Your task to perform on an android device: Set the phone to "Do not disturb". Image 0: 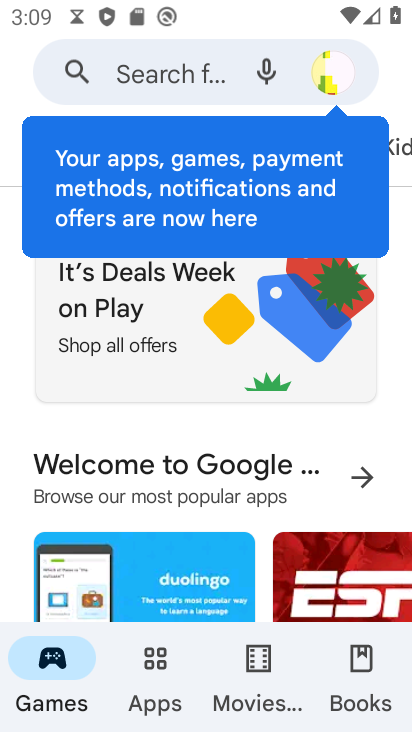
Step 0: press home button
Your task to perform on an android device: Set the phone to "Do not disturb". Image 1: 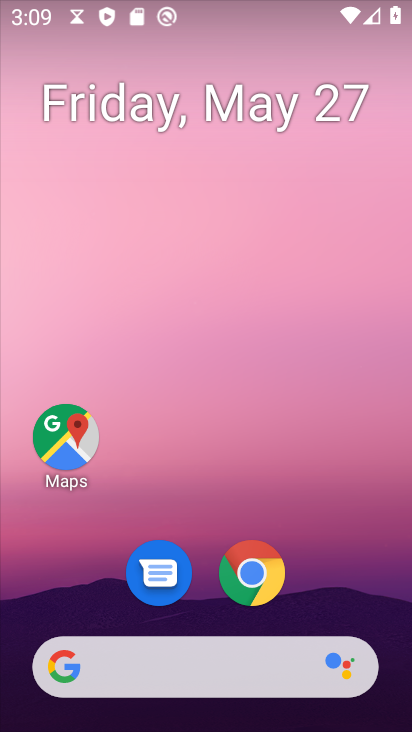
Step 1: drag from (307, 614) to (408, 150)
Your task to perform on an android device: Set the phone to "Do not disturb". Image 2: 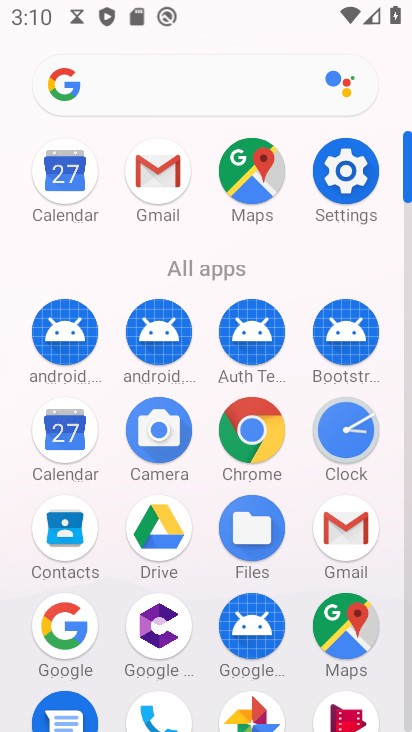
Step 2: click (341, 165)
Your task to perform on an android device: Set the phone to "Do not disturb". Image 3: 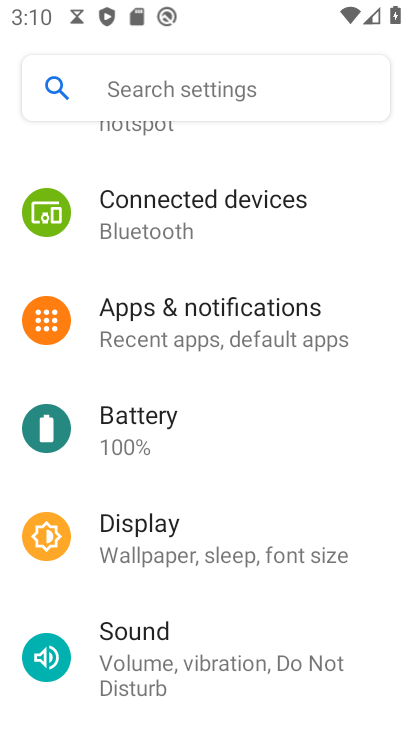
Step 3: click (98, 684)
Your task to perform on an android device: Set the phone to "Do not disturb". Image 4: 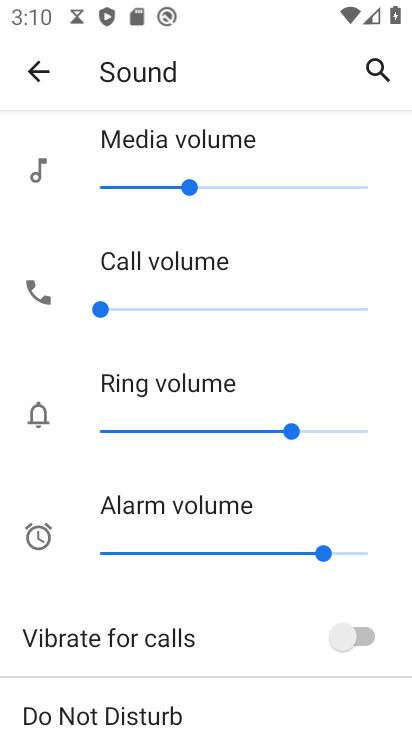
Step 4: drag from (141, 652) to (134, 173)
Your task to perform on an android device: Set the phone to "Do not disturb". Image 5: 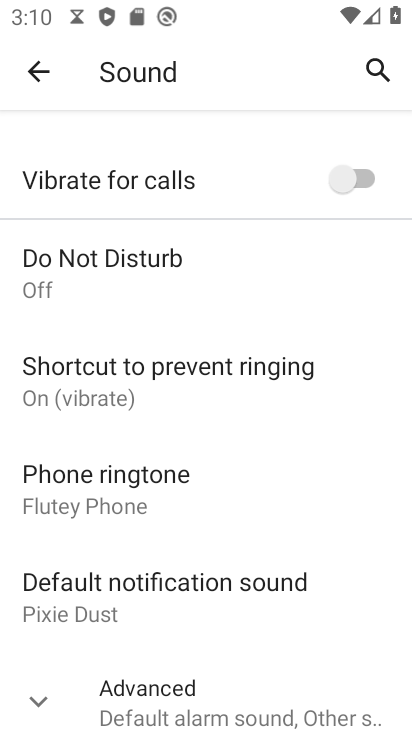
Step 5: click (118, 276)
Your task to perform on an android device: Set the phone to "Do not disturb". Image 6: 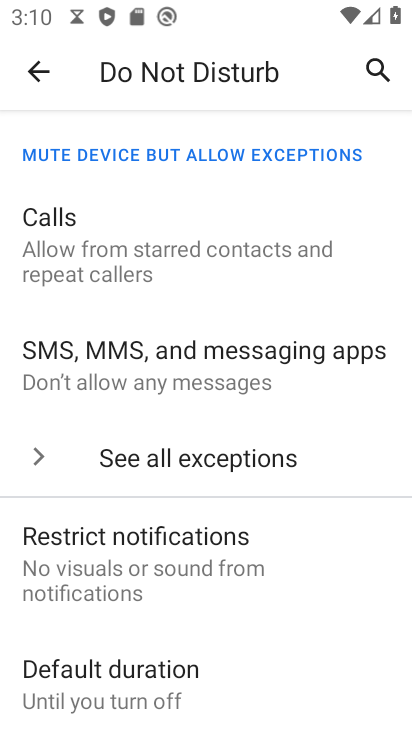
Step 6: drag from (210, 637) to (190, 188)
Your task to perform on an android device: Set the phone to "Do not disturb". Image 7: 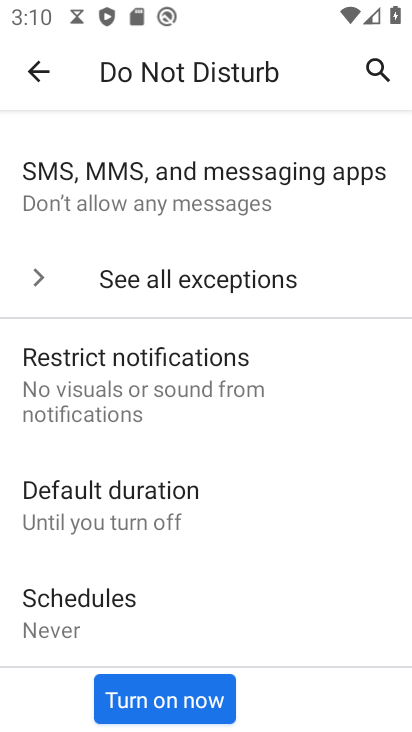
Step 7: click (135, 696)
Your task to perform on an android device: Set the phone to "Do not disturb". Image 8: 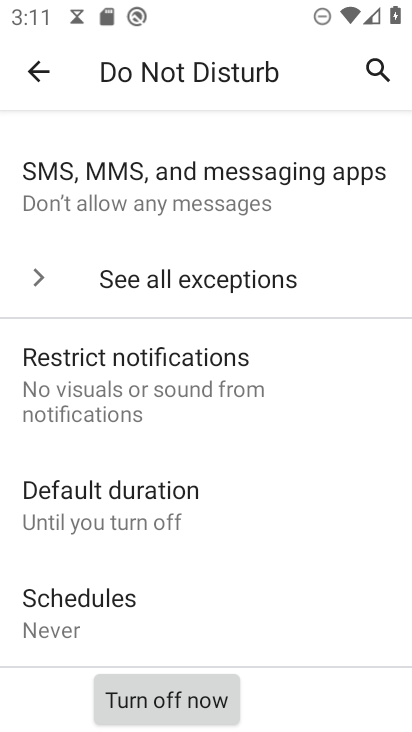
Step 8: task complete